Your task to perform on an android device: Go to Reddit.com Image 0: 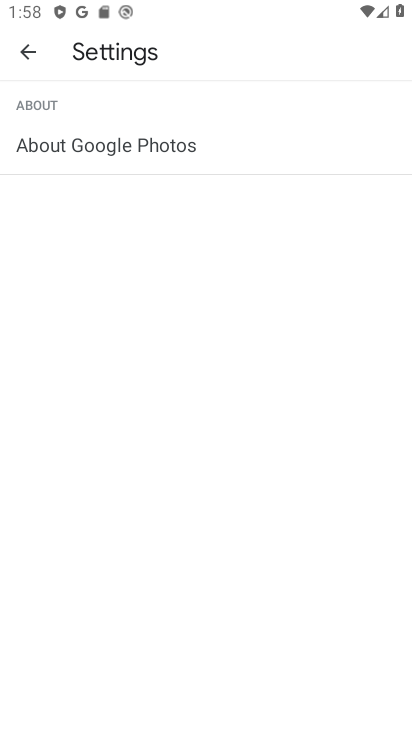
Step 0: press home button
Your task to perform on an android device: Go to Reddit.com Image 1: 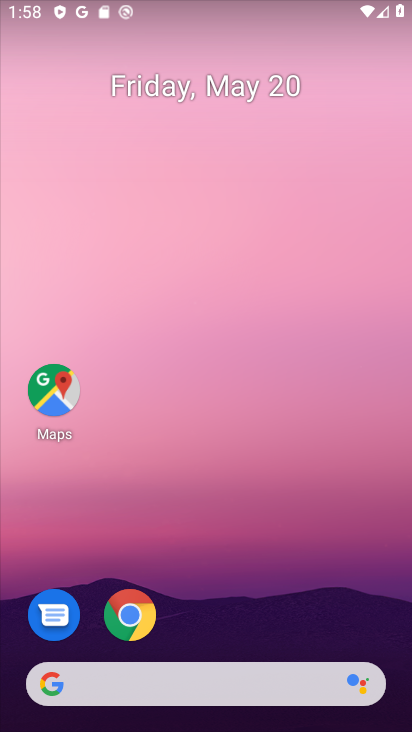
Step 1: click (135, 627)
Your task to perform on an android device: Go to Reddit.com Image 2: 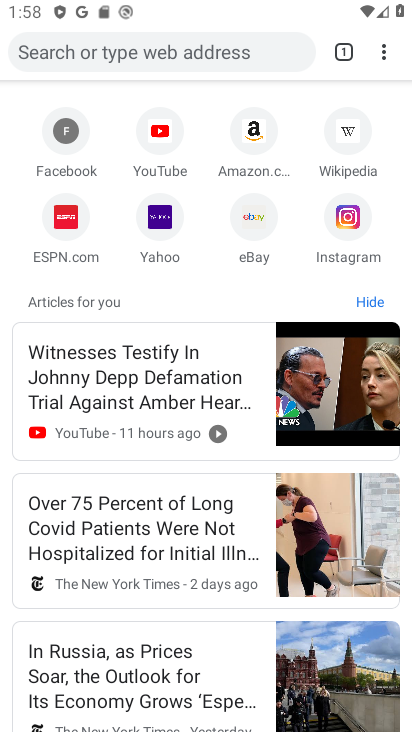
Step 2: click (166, 49)
Your task to perform on an android device: Go to Reddit.com Image 3: 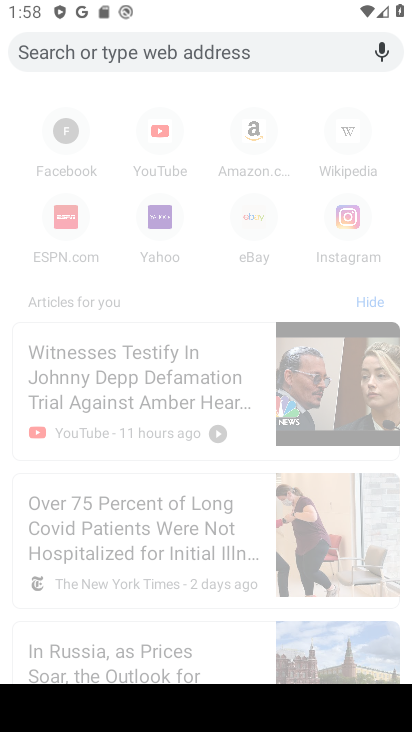
Step 3: type "reddit.com"
Your task to perform on an android device: Go to Reddit.com Image 4: 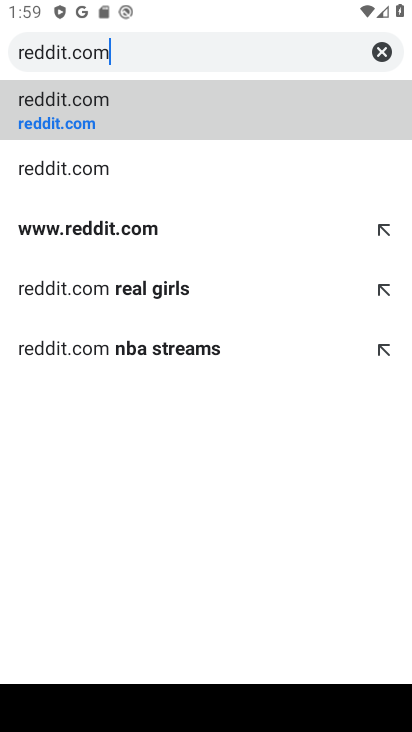
Step 4: click (73, 122)
Your task to perform on an android device: Go to Reddit.com Image 5: 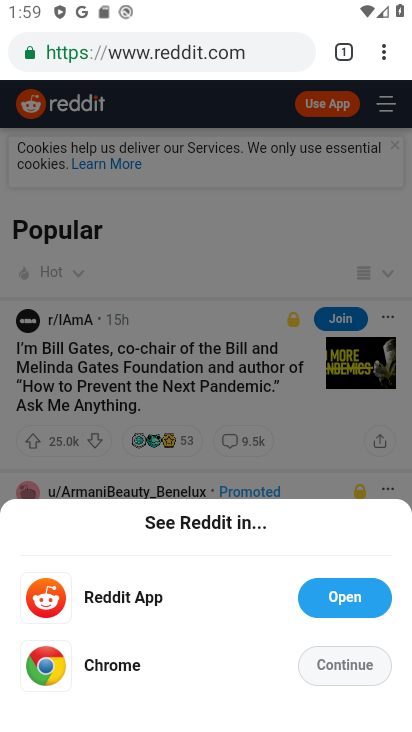
Step 5: click (349, 668)
Your task to perform on an android device: Go to Reddit.com Image 6: 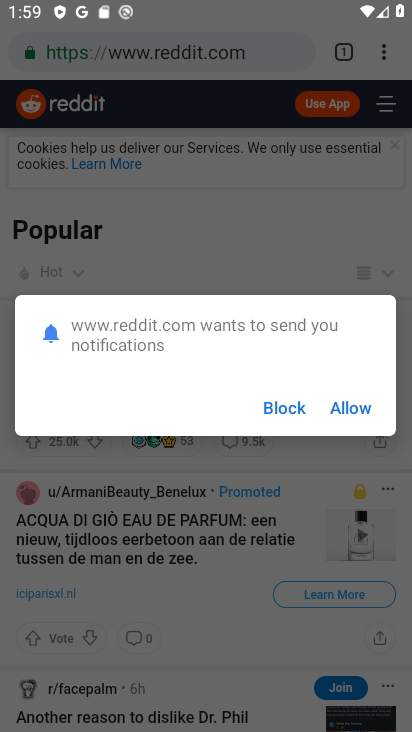
Step 6: task complete